Your task to perform on an android device: turn on translation in the chrome app Image 0: 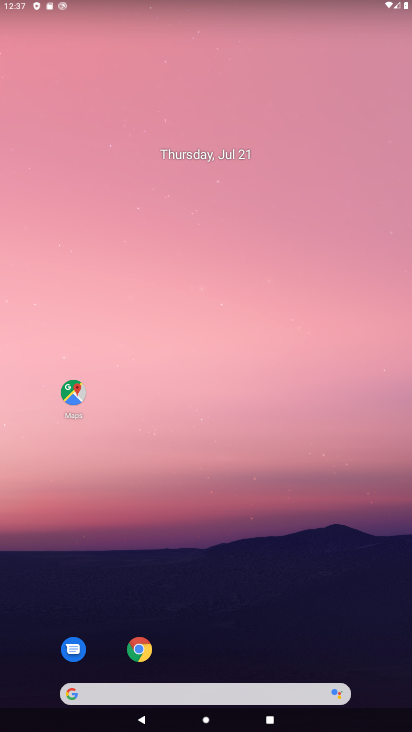
Step 0: click (143, 646)
Your task to perform on an android device: turn on translation in the chrome app Image 1: 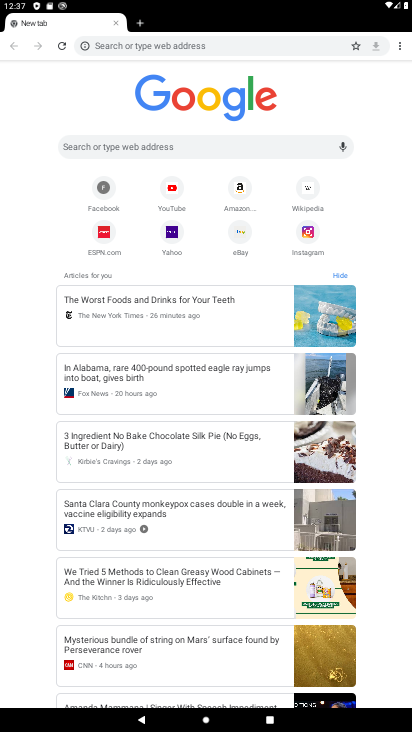
Step 1: task complete